Your task to perform on an android device: open app "McDonald's" Image 0: 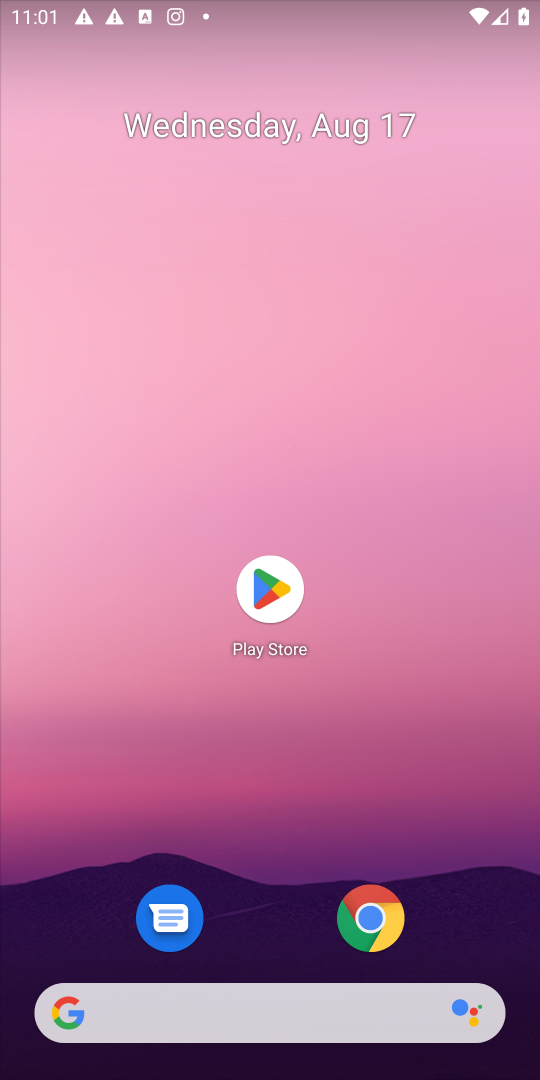
Step 0: click (274, 582)
Your task to perform on an android device: open app "McDonald's" Image 1: 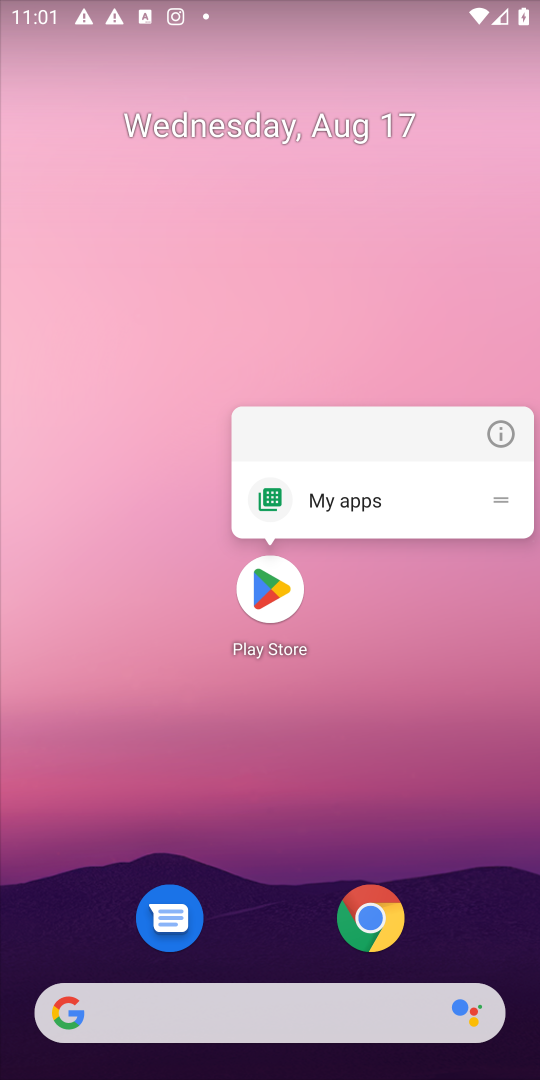
Step 1: click (265, 600)
Your task to perform on an android device: open app "McDonald's" Image 2: 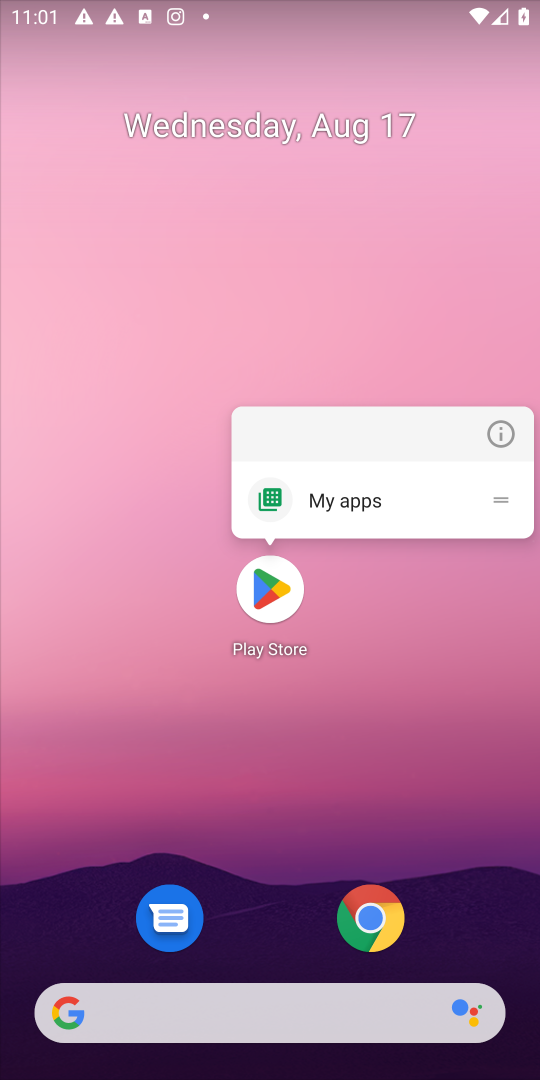
Step 2: click (265, 600)
Your task to perform on an android device: open app "McDonald's" Image 3: 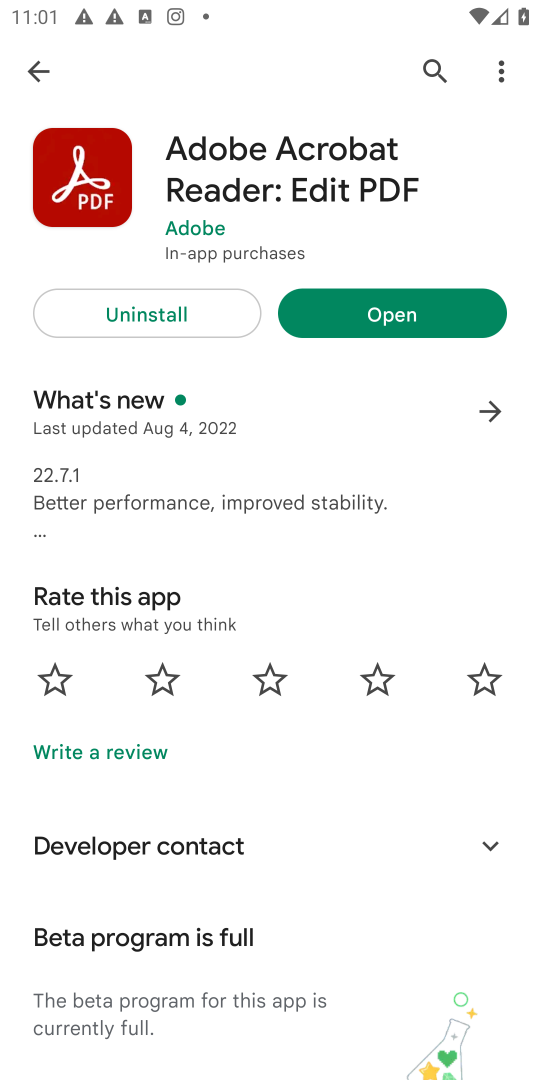
Step 3: click (430, 60)
Your task to perform on an android device: open app "McDonald's" Image 4: 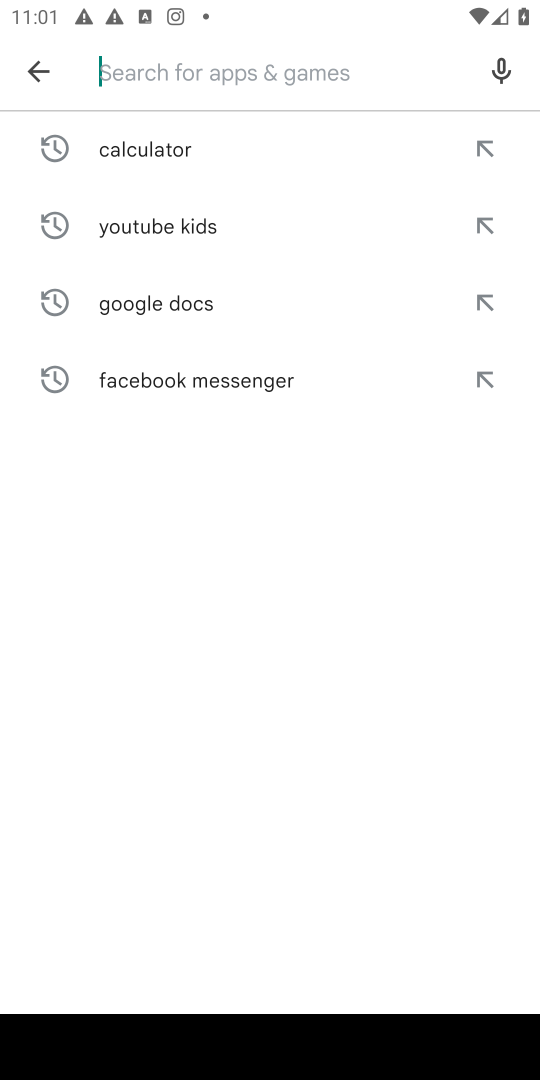
Step 4: type "McDonald's"
Your task to perform on an android device: open app "McDonald's" Image 5: 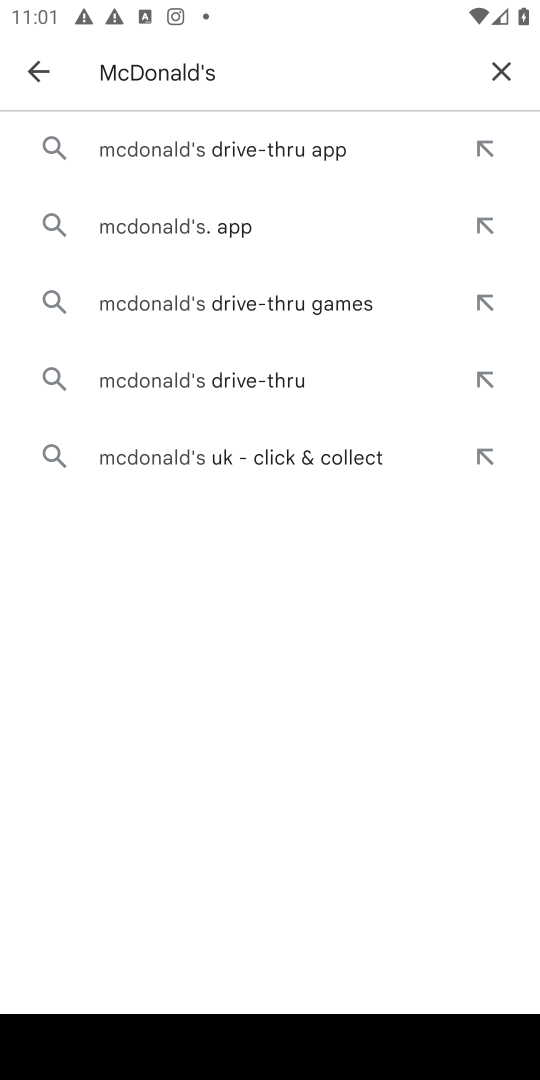
Step 5: click (176, 151)
Your task to perform on an android device: open app "McDonald's" Image 6: 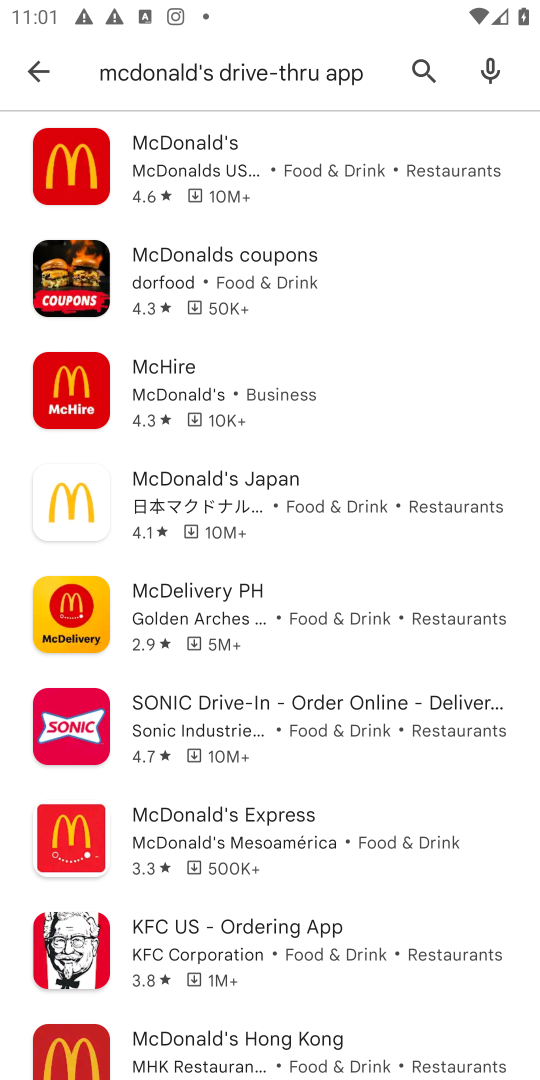
Step 6: click (220, 149)
Your task to perform on an android device: open app "McDonald's" Image 7: 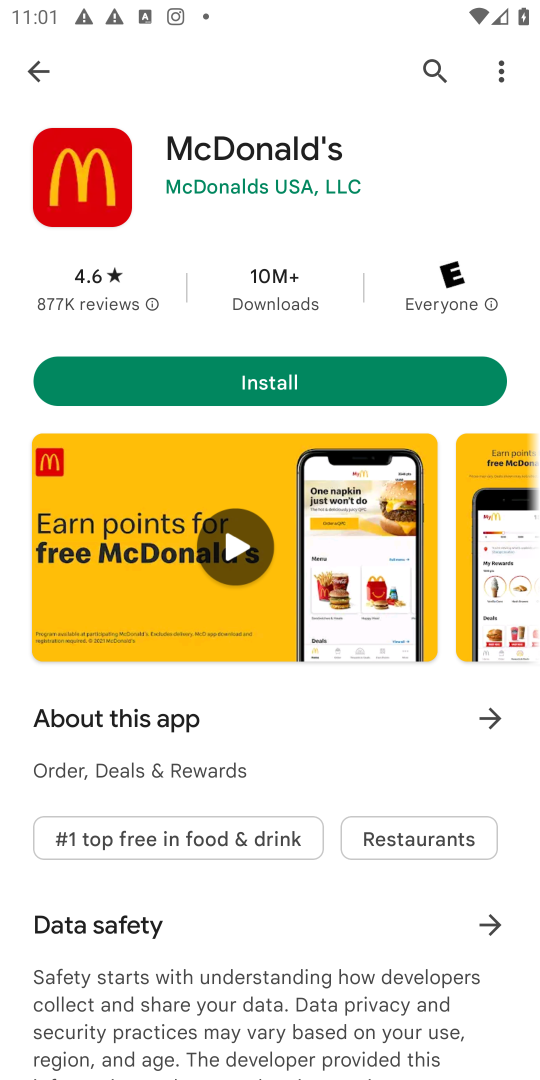
Step 7: task complete